Your task to perform on an android device: Open eBay Image 0: 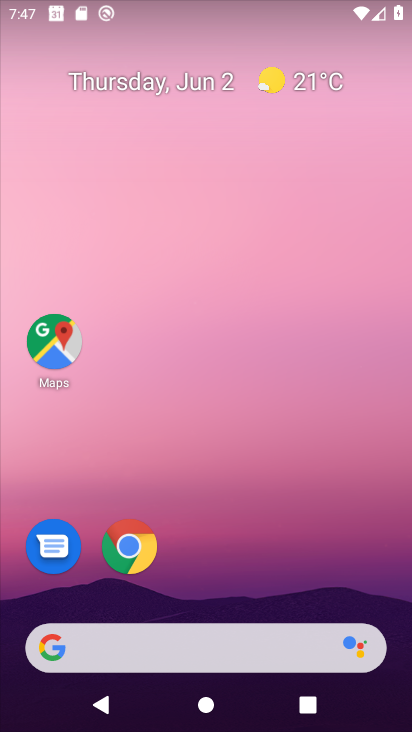
Step 0: drag from (344, 552) to (348, 162)
Your task to perform on an android device: Open eBay Image 1: 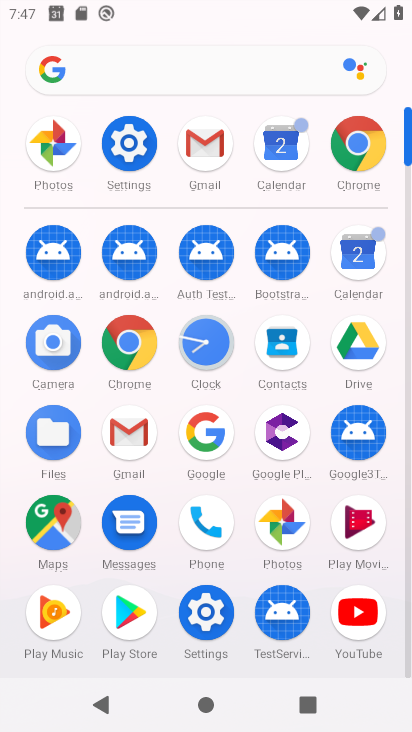
Step 1: click (100, 369)
Your task to perform on an android device: Open eBay Image 2: 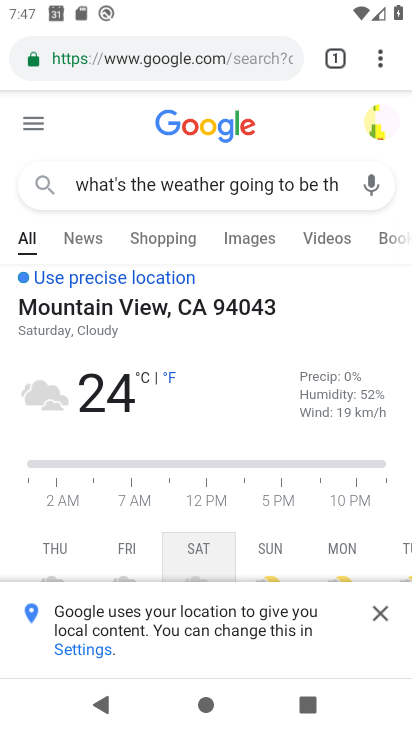
Step 2: click (206, 49)
Your task to perform on an android device: Open eBay Image 3: 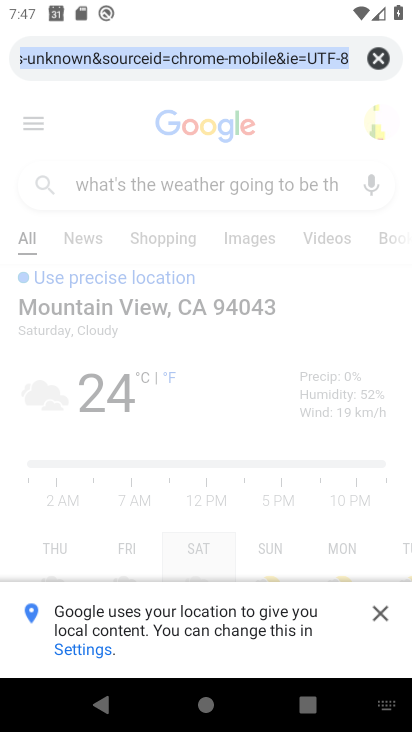
Step 3: click (388, 60)
Your task to perform on an android device: Open eBay Image 4: 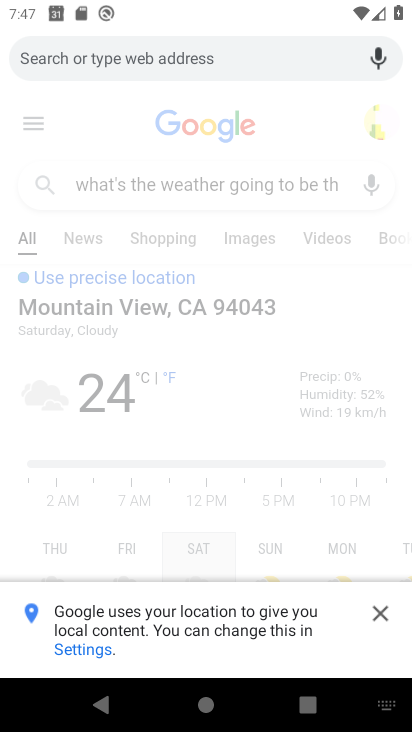
Step 4: type "eba"
Your task to perform on an android device: Open eBay Image 5: 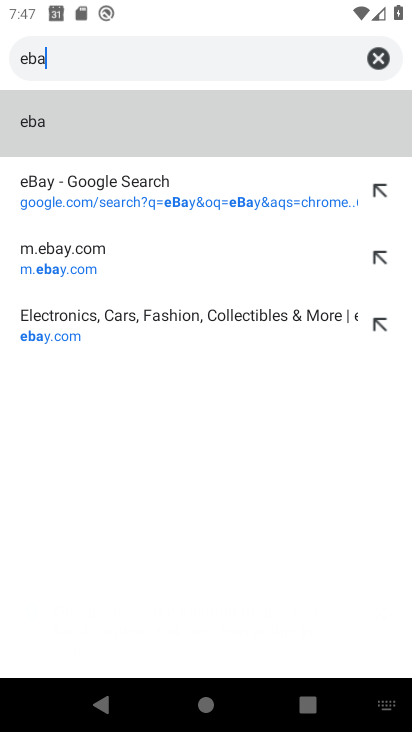
Step 5: click (167, 193)
Your task to perform on an android device: Open eBay Image 6: 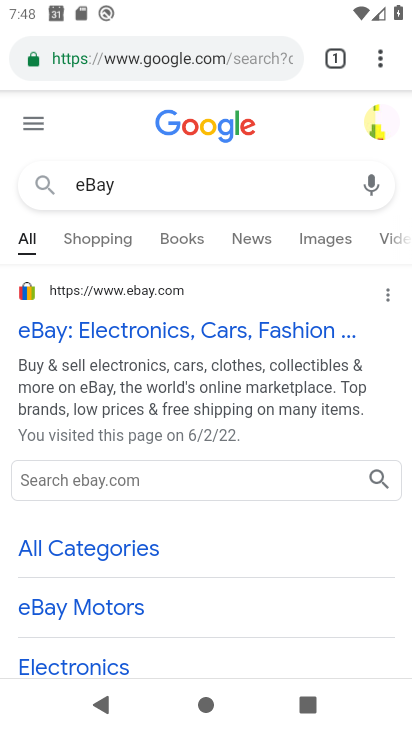
Step 6: task complete